Your task to perform on an android device: View the shopping cart on target. Add "logitech g pro" to the cart on target Image 0: 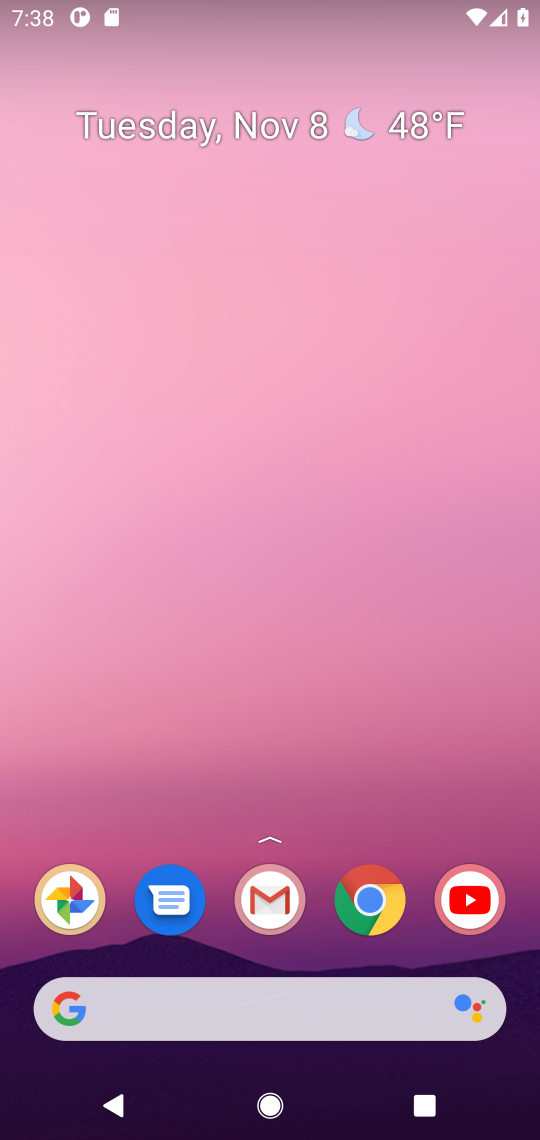
Step 0: drag from (145, 961) to (224, 52)
Your task to perform on an android device: View the shopping cart on target. Add "logitech g pro" to the cart on target Image 1: 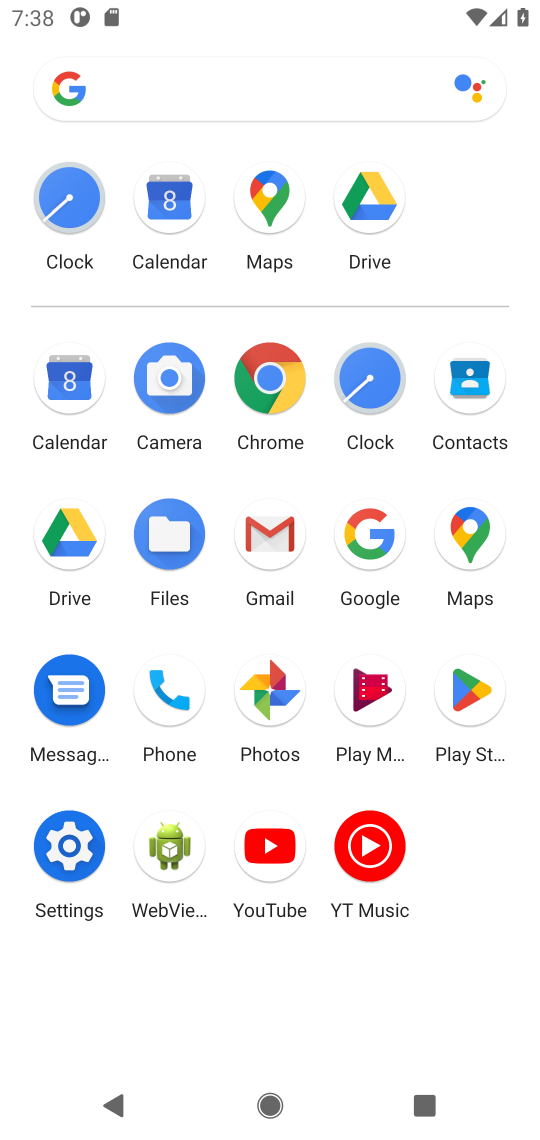
Step 1: click (366, 532)
Your task to perform on an android device: View the shopping cart on target. Add "logitech g pro" to the cart on target Image 2: 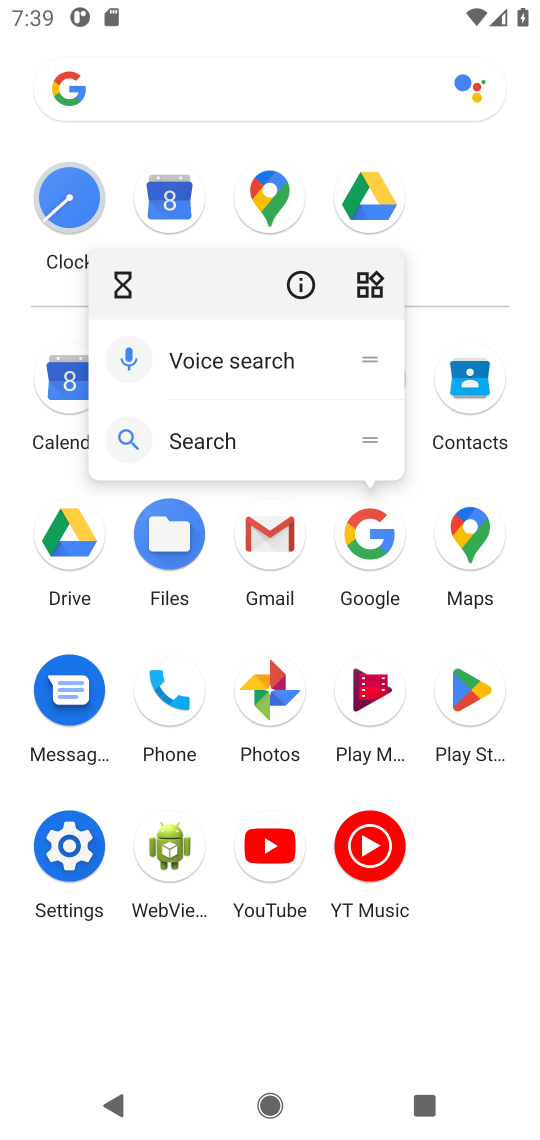
Step 2: click (376, 535)
Your task to perform on an android device: View the shopping cart on target. Add "logitech g pro" to the cart on target Image 3: 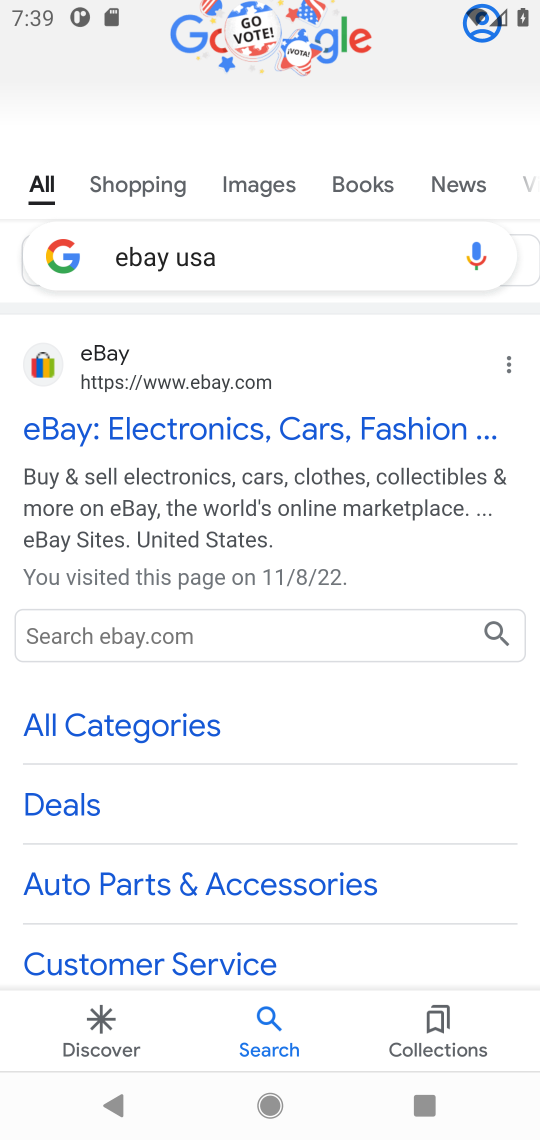
Step 3: click (222, 256)
Your task to perform on an android device: View the shopping cart on target. Add "logitech g pro" to the cart on target Image 4: 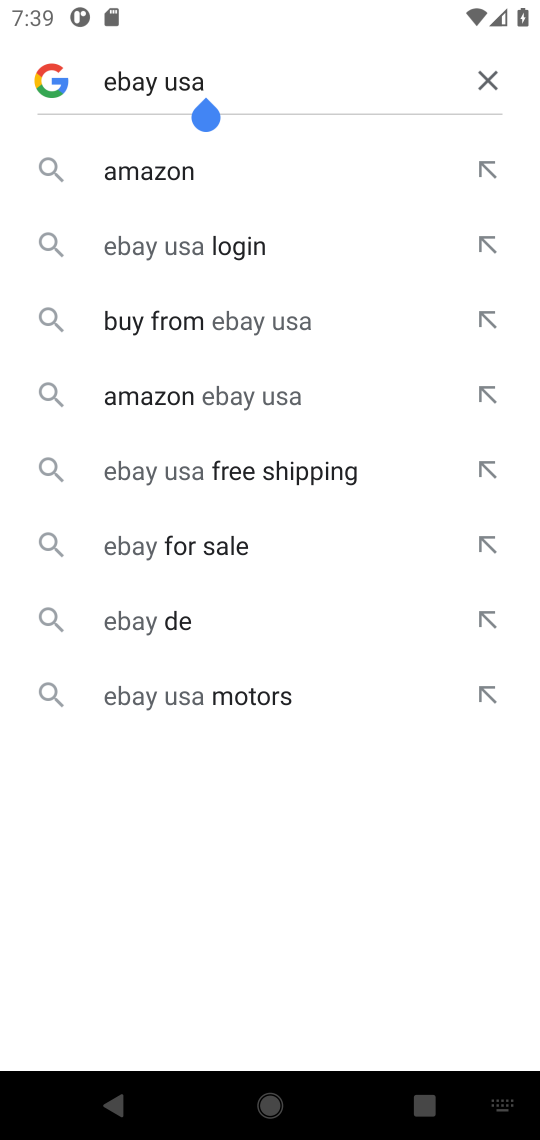
Step 4: click (483, 71)
Your task to perform on an android device: View the shopping cart on target. Add "logitech g pro" to the cart on target Image 5: 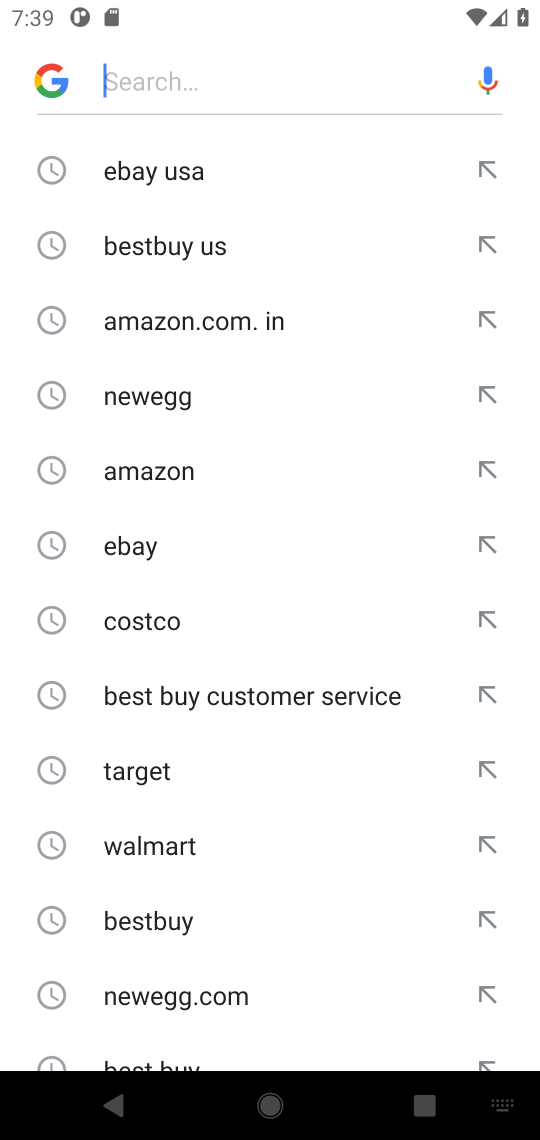
Step 5: click (300, 64)
Your task to perform on an android device: View the shopping cart on target. Add "logitech g pro" to the cart on target Image 6: 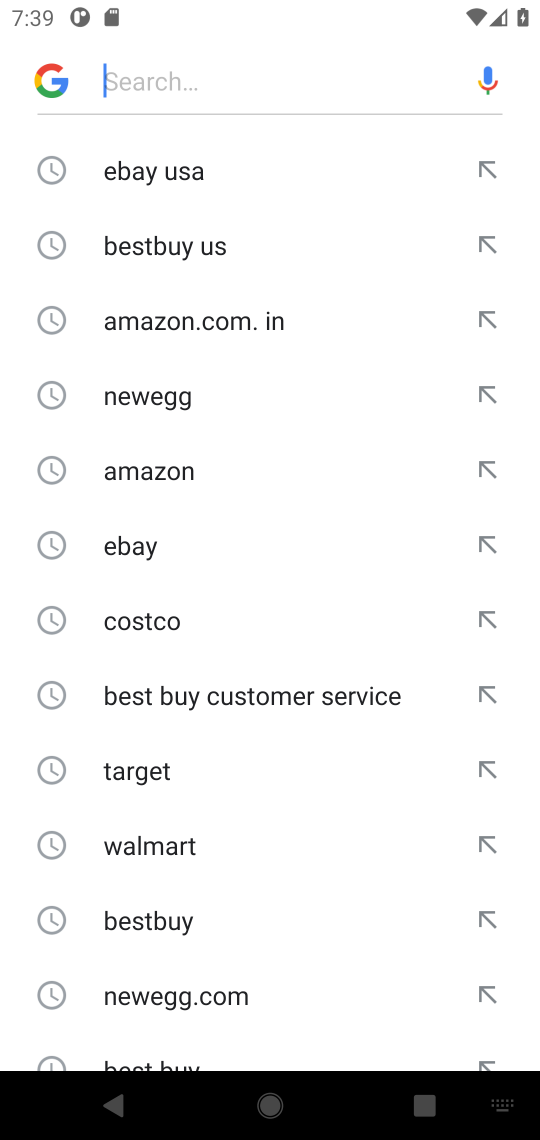
Step 6: type "target "
Your task to perform on an android device: View the shopping cart on target. Add "logitech g pro" to the cart on target Image 7: 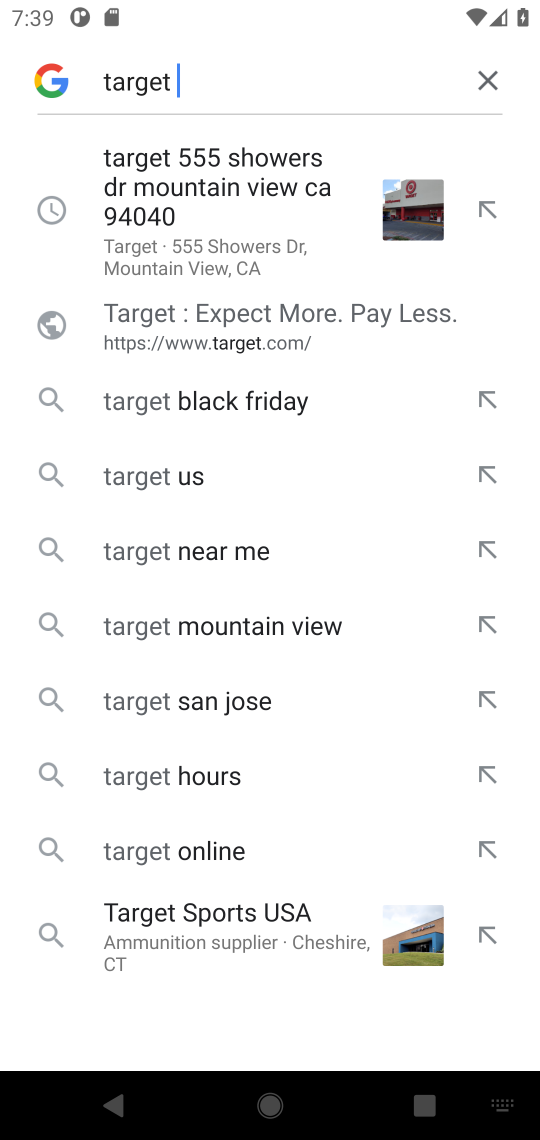
Step 7: click (204, 313)
Your task to perform on an android device: View the shopping cart on target. Add "logitech g pro" to the cart on target Image 8: 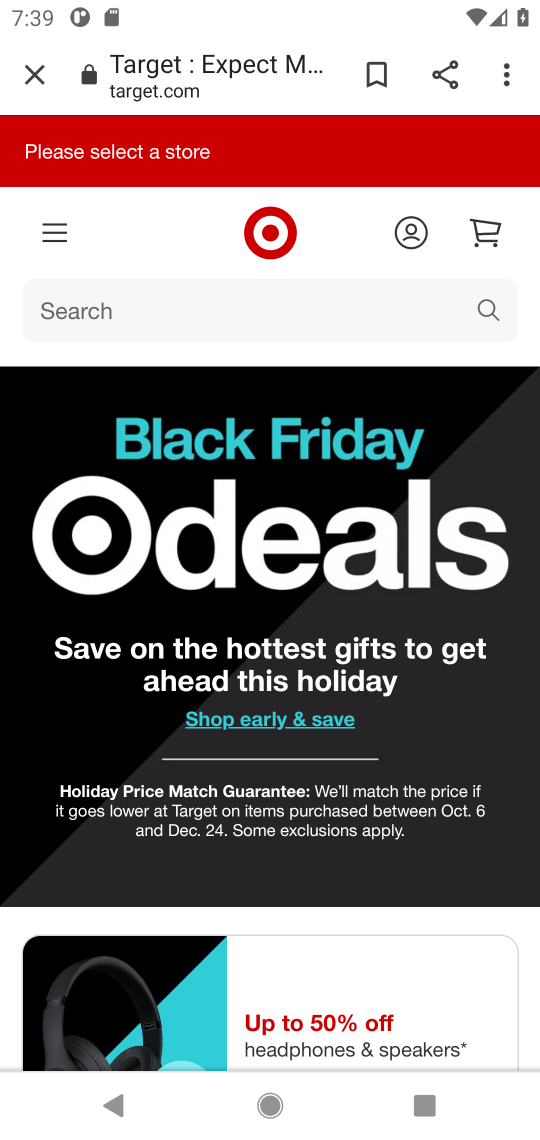
Step 8: click (218, 310)
Your task to perform on an android device: View the shopping cart on target. Add "logitech g pro" to the cart on target Image 9: 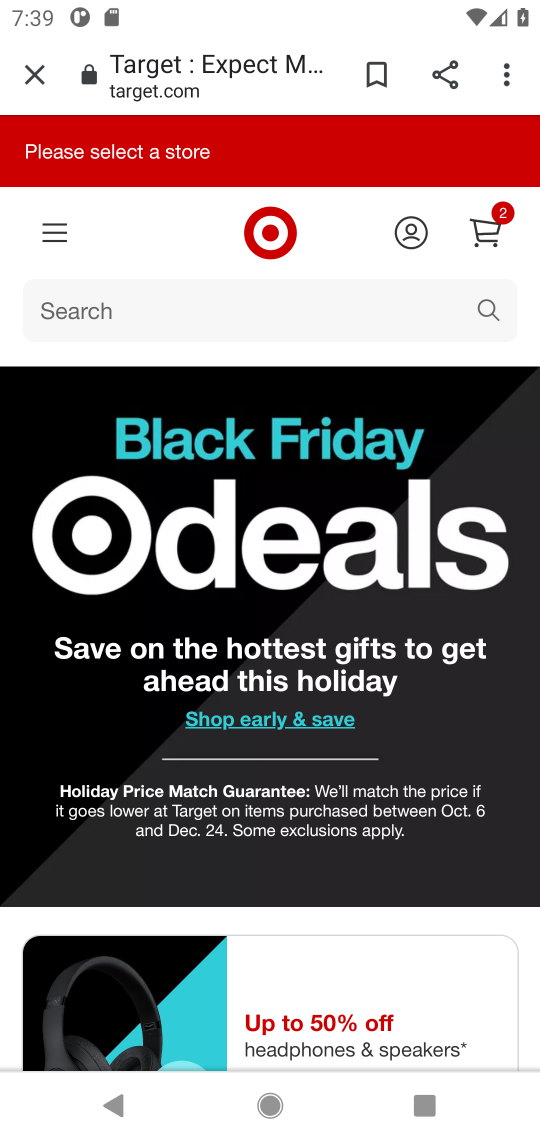
Step 9: click (282, 297)
Your task to perform on an android device: View the shopping cart on target. Add "logitech g pro" to the cart on target Image 10: 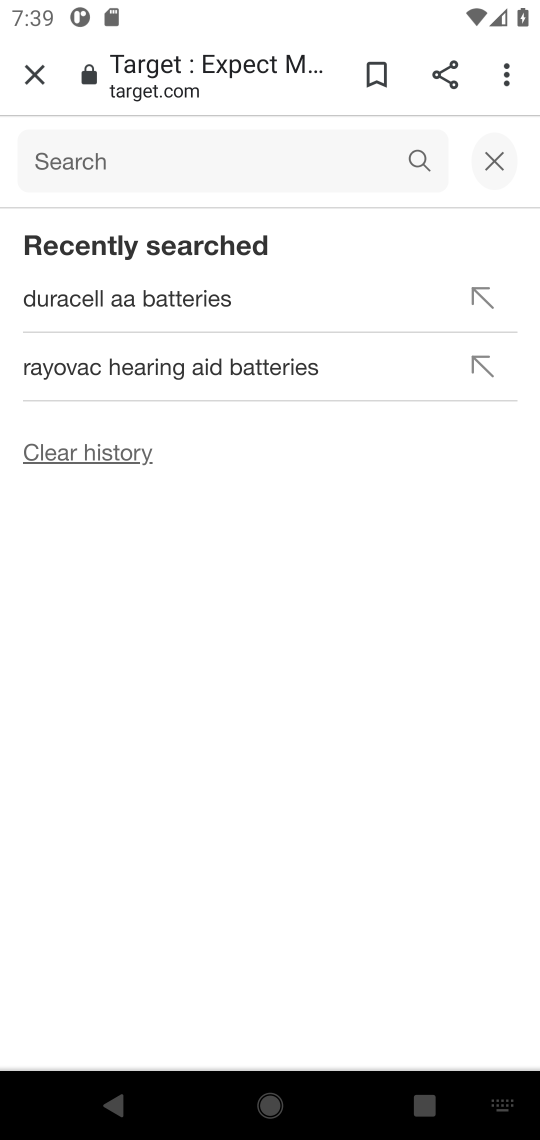
Step 10: click (222, 149)
Your task to perform on an android device: View the shopping cart on target. Add "logitech g pro" to the cart on target Image 11: 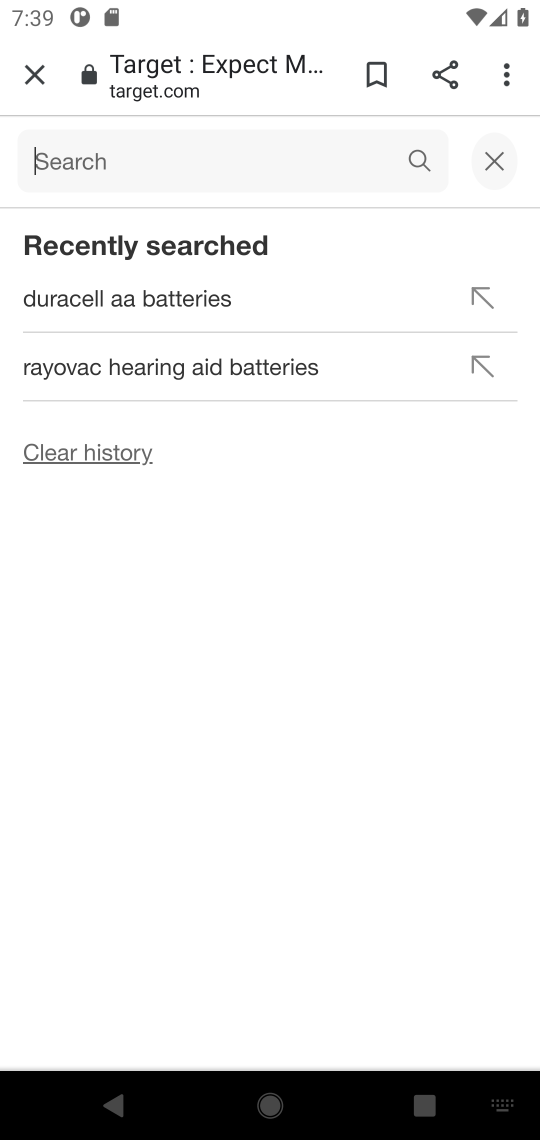
Step 11: type "logitech g pro "
Your task to perform on an android device: View the shopping cart on target. Add "logitech g pro" to the cart on target Image 12: 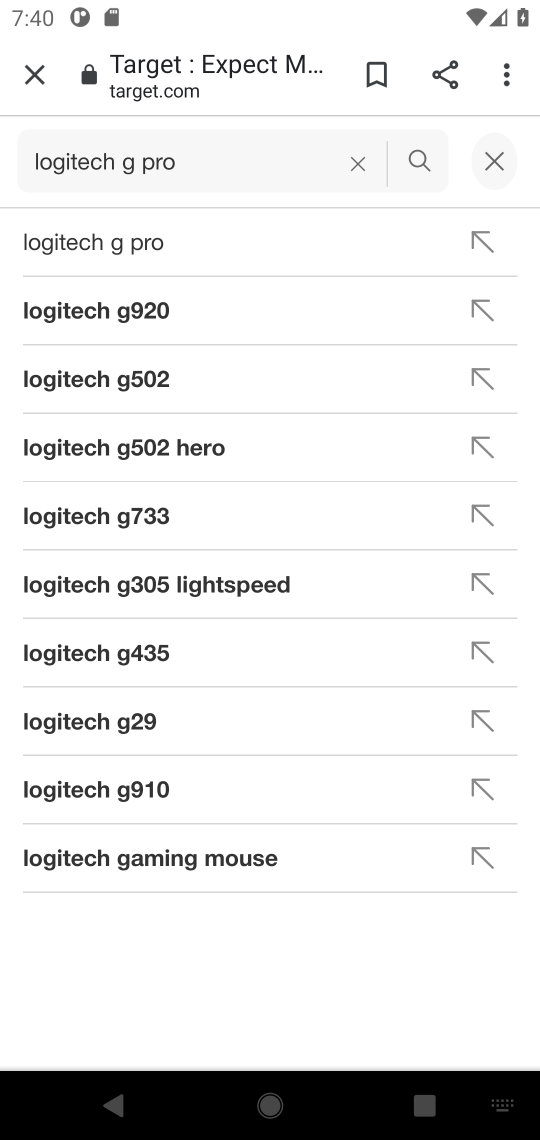
Step 12: click (252, 249)
Your task to perform on an android device: View the shopping cart on target. Add "logitech g pro" to the cart on target Image 13: 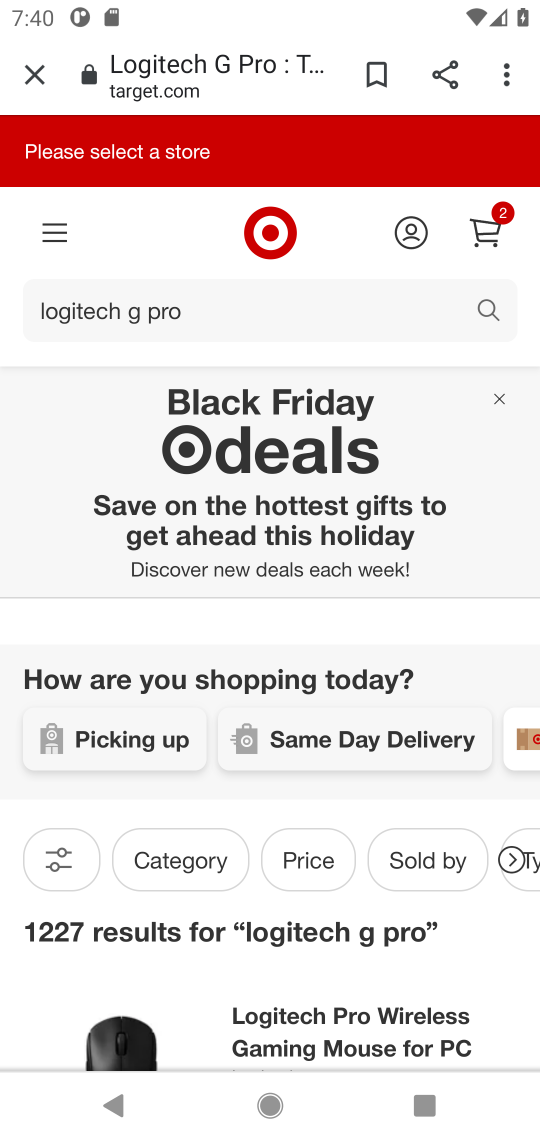
Step 13: drag from (314, 974) to (334, 451)
Your task to perform on an android device: View the shopping cart on target. Add "logitech g pro" to the cart on target Image 14: 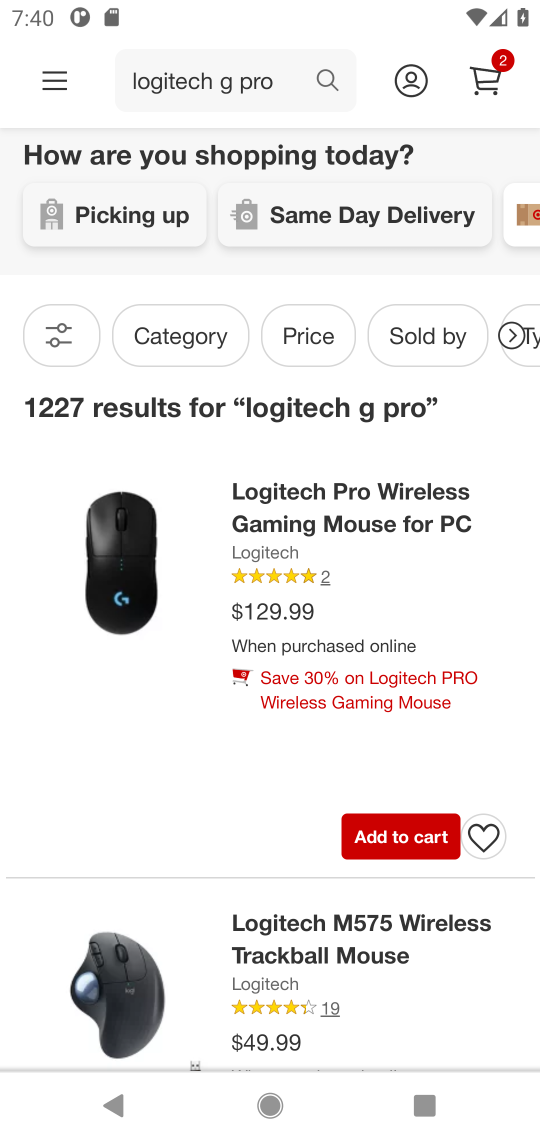
Step 14: click (416, 829)
Your task to perform on an android device: View the shopping cart on target. Add "logitech g pro" to the cart on target Image 15: 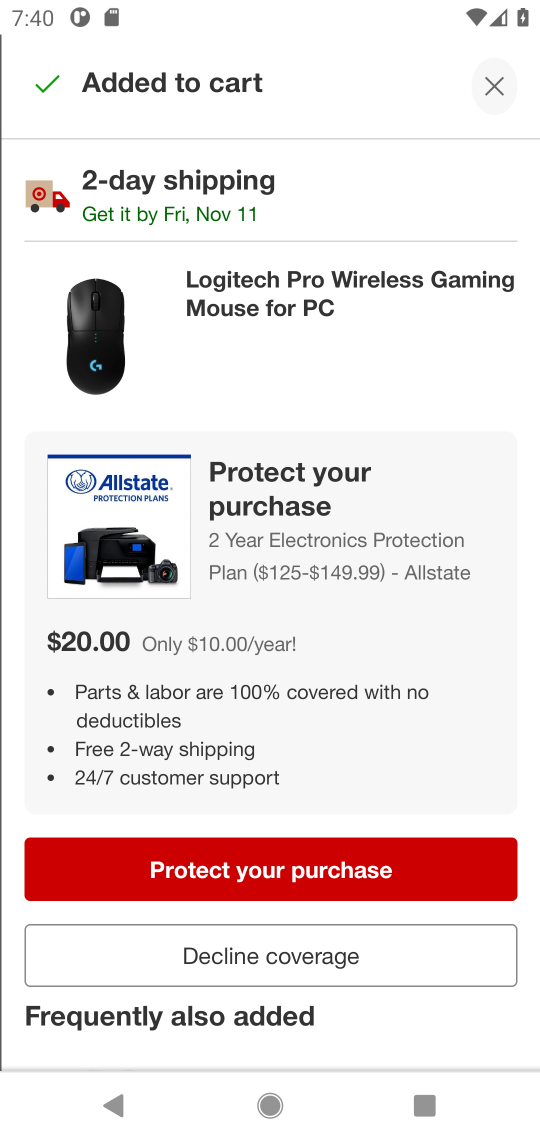
Step 15: task complete